Your task to perform on an android device: open the mobile data screen to see how much data has been used Image 0: 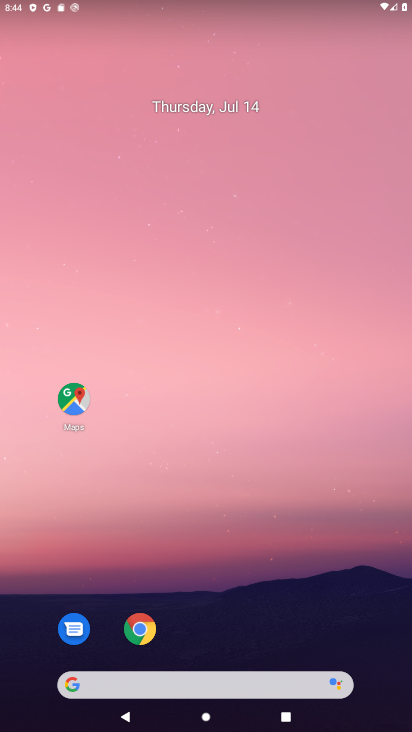
Step 0: drag from (283, 577) to (316, 284)
Your task to perform on an android device: open the mobile data screen to see how much data has been used Image 1: 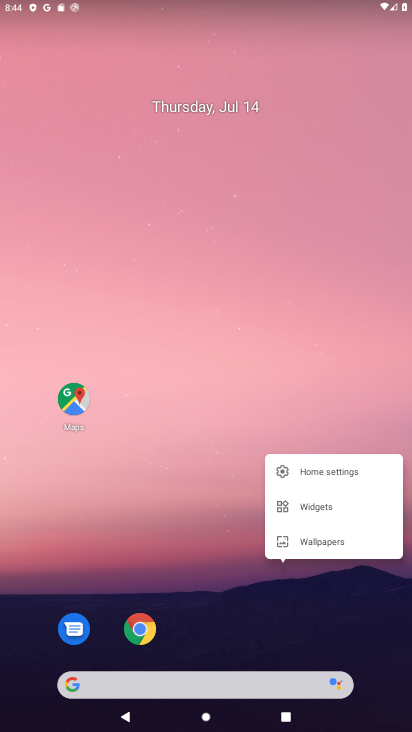
Step 1: click (187, 399)
Your task to perform on an android device: open the mobile data screen to see how much data has been used Image 2: 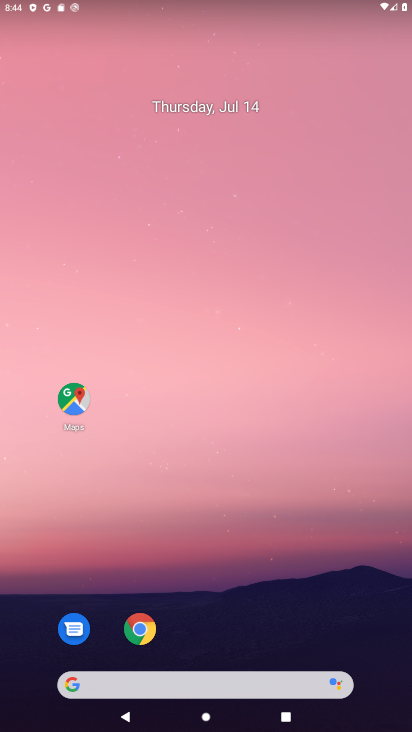
Step 2: drag from (230, 594) to (248, 2)
Your task to perform on an android device: open the mobile data screen to see how much data has been used Image 3: 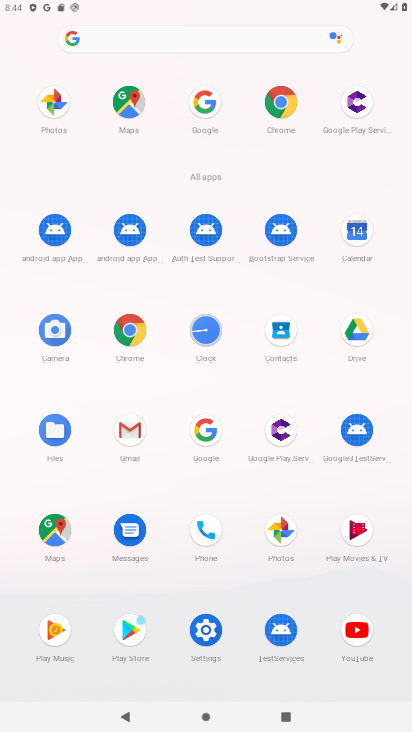
Step 3: drag from (285, 11) to (271, 512)
Your task to perform on an android device: open the mobile data screen to see how much data has been used Image 4: 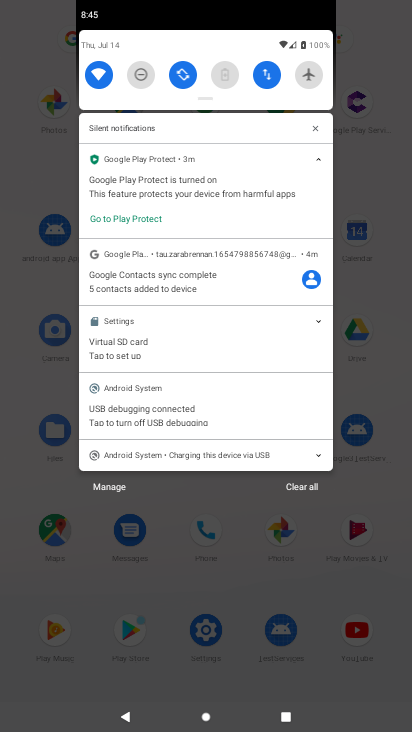
Step 4: click (263, 73)
Your task to perform on an android device: open the mobile data screen to see how much data has been used Image 5: 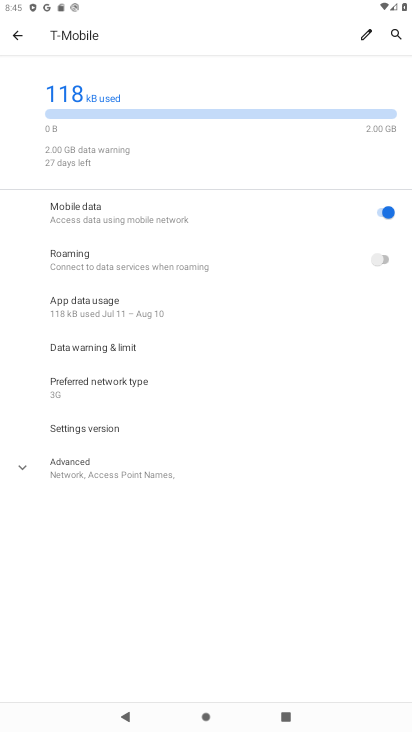
Step 5: task complete